Your task to perform on an android device: allow notifications from all sites in the chrome app Image 0: 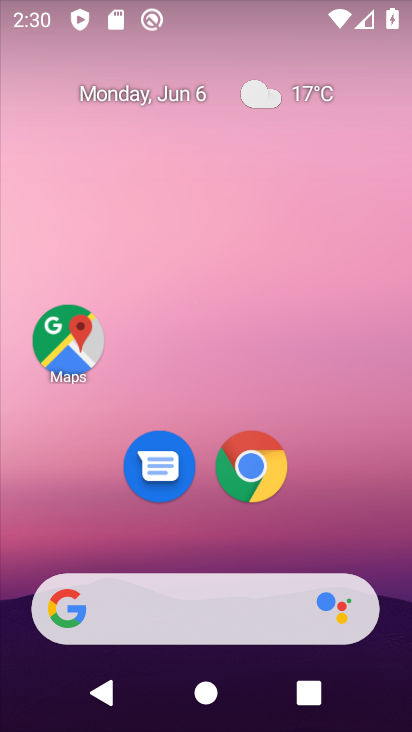
Step 0: click (276, 493)
Your task to perform on an android device: allow notifications from all sites in the chrome app Image 1: 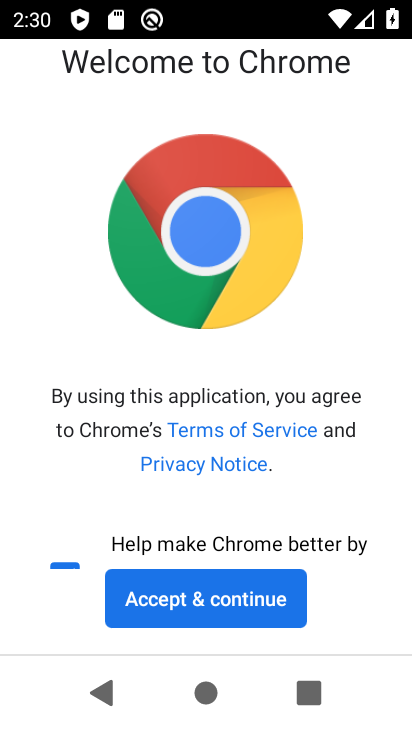
Step 1: click (232, 593)
Your task to perform on an android device: allow notifications from all sites in the chrome app Image 2: 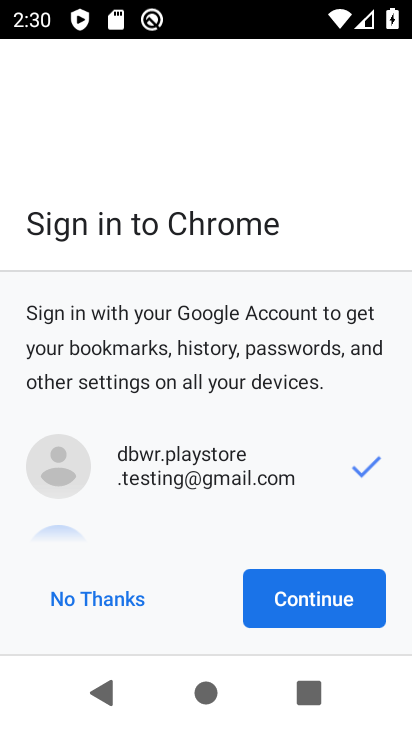
Step 2: click (342, 591)
Your task to perform on an android device: allow notifications from all sites in the chrome app Image 3: 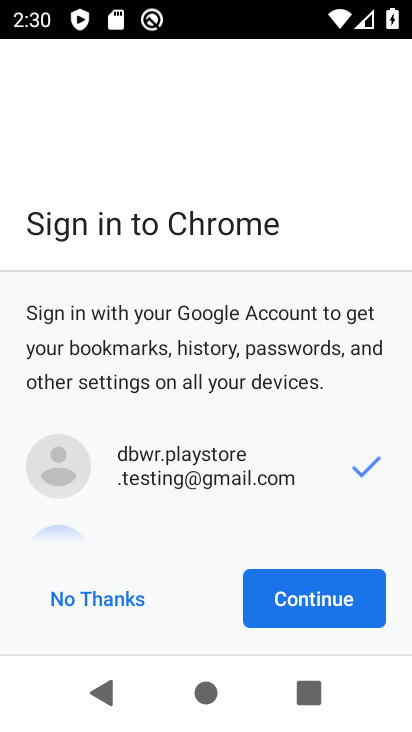
Step 3: click (340, 589)
Your task to perform on an android device: allow notifications from all sites in the chrome app Image 4: 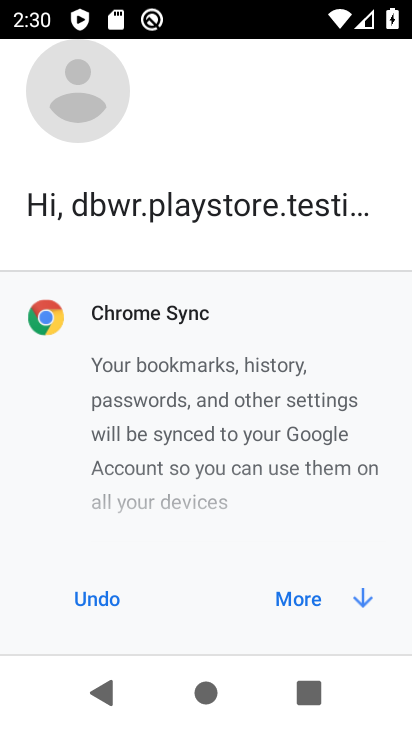
Step 4: click (340, 589)
Your task to perform on an android device: allow notifications from all sites in the chrome app Image 5: 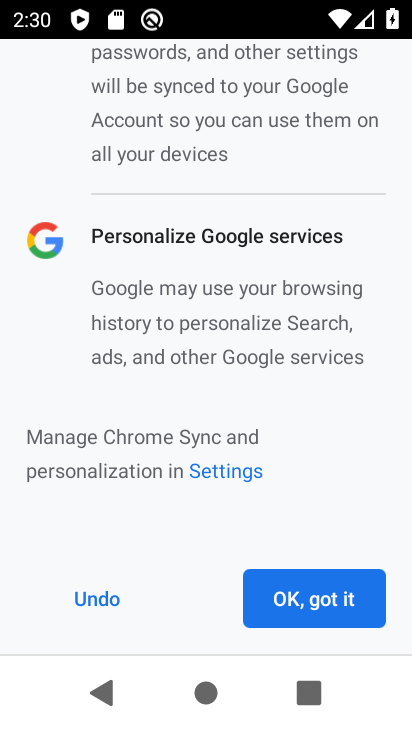
Step 5: click (333, 581)
Your task to perform on an android device: allow notifications from all sites in the chrome app Image 6: 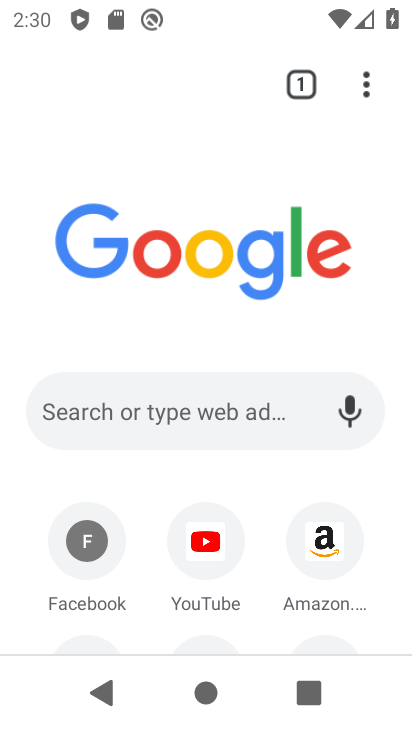
Step 6: click (373, 90)
Your task to perform on an android device: allow notifications from all sites in the chrome app Image 7: 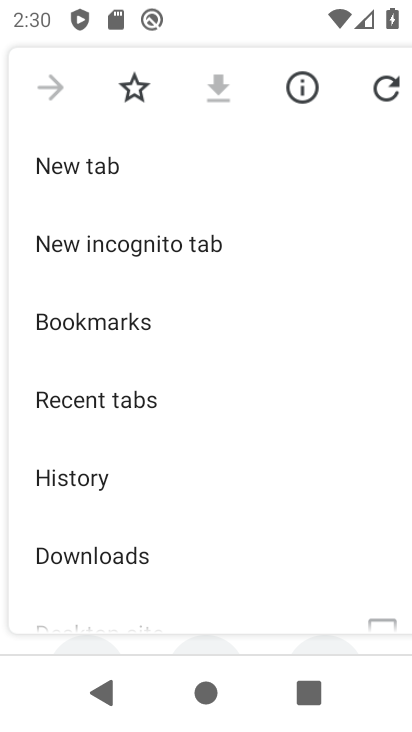
Step 7: drag from (210, 520) to (122, 7)
Your task to perform on an android device: allow notifications from all sites in the chrome app Image 8: 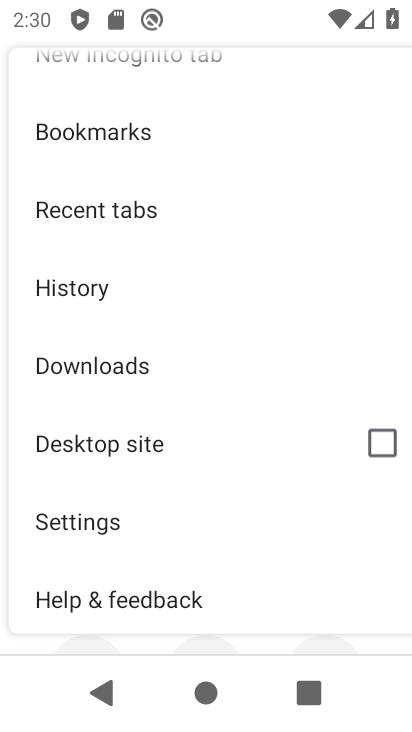
Step 8: click (203, 521)
Your task to perform on an android device: allow notifications from all sites in the chrome app Image 9: 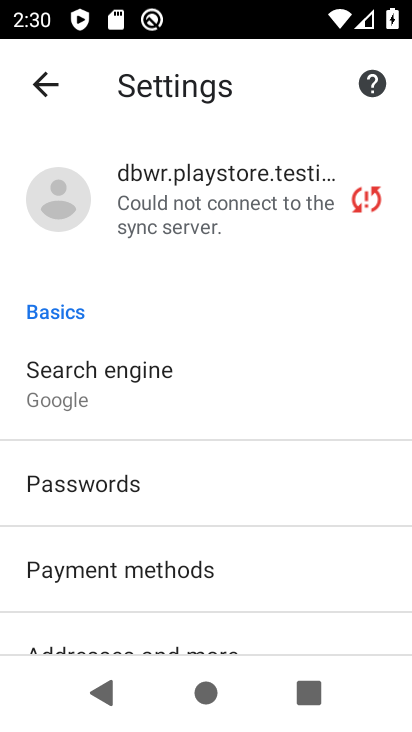
Step 9: drag from (227, 459) to (193, 49)
Your task to perform on an android device: allow notifications from all sites in the chrome app Image 10: 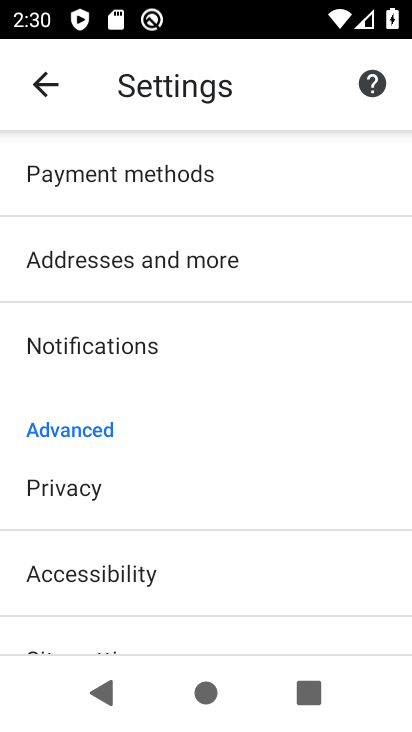
Step 10: drag from (206, 565) to (185, 92)
Your task to perform on an android device: allow notifications from all sites in the chrome app Image 11: 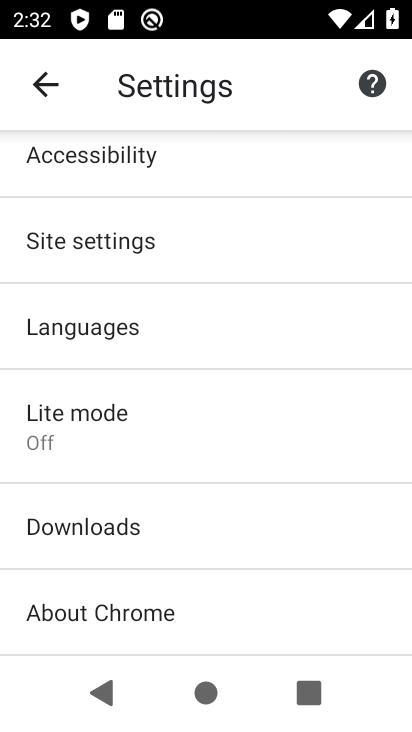
Step 11: press home button
Your task to perform on an android device: allow notifications from all sites in the chrome app Image 12: 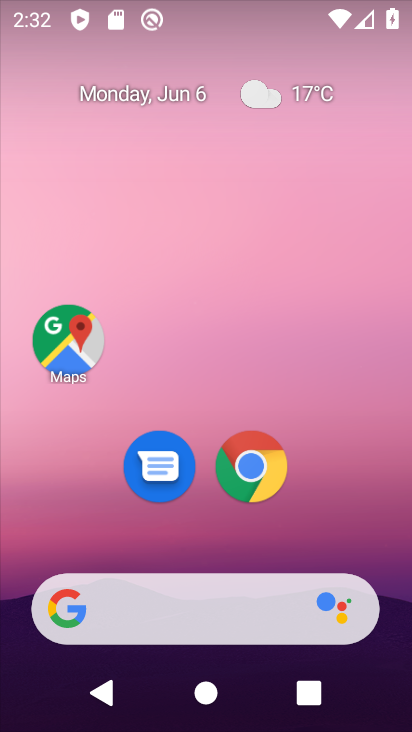
Step 12: click (250, 468)
Your task to perform on an android device: allow notifications from all sites in the chrome app Image 13: 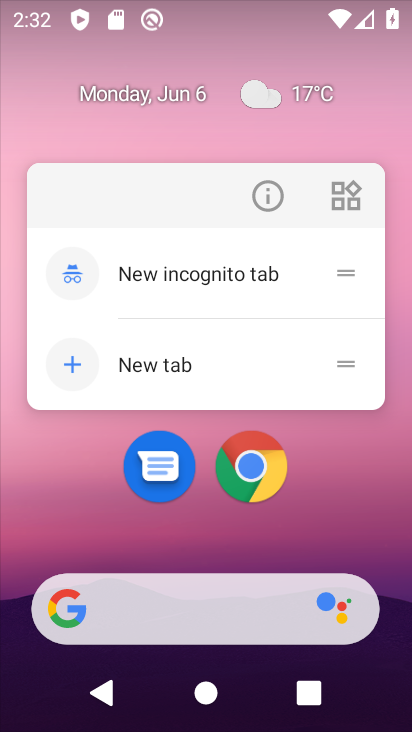
Step 13: click (251, 479)
Your task to perform on an android device: allow notifications from all sites in the chrome app Image 14: 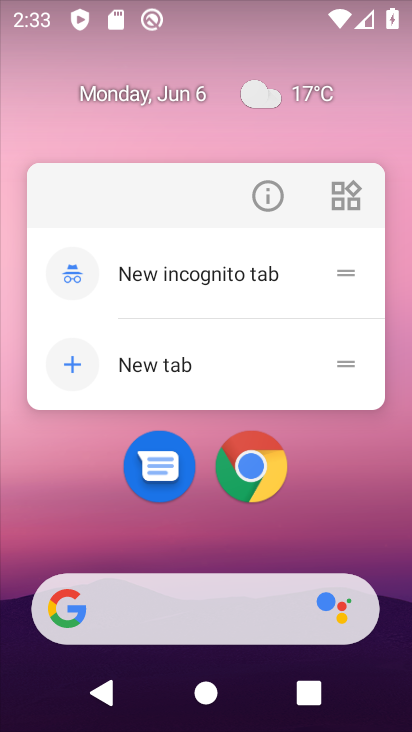
Step 14: press home button
Your task to perform on an android device: allow notifications from all sites in the chrome app Image 15: 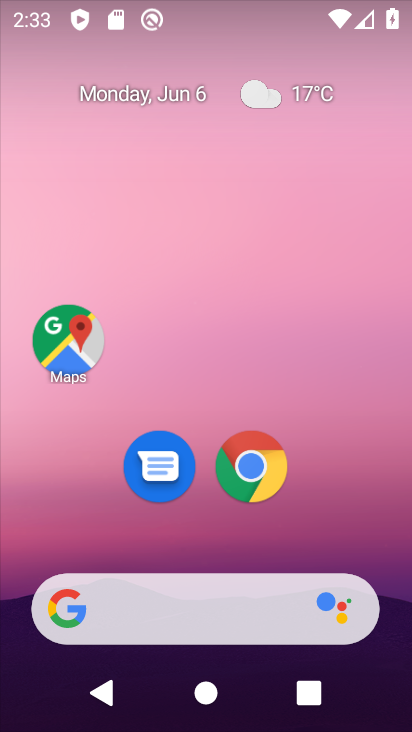
Step 15: click (265, 470)
Your task to perform on an android device: allow notifications from all sites in the chrome app Image 16: 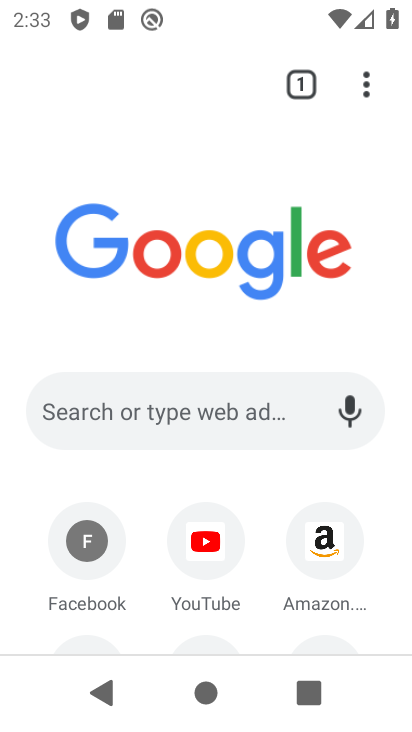
Step 16: click (364, 70)
Your task to perform on an android device: allow notifications from all sites in the chrome app Image 17: 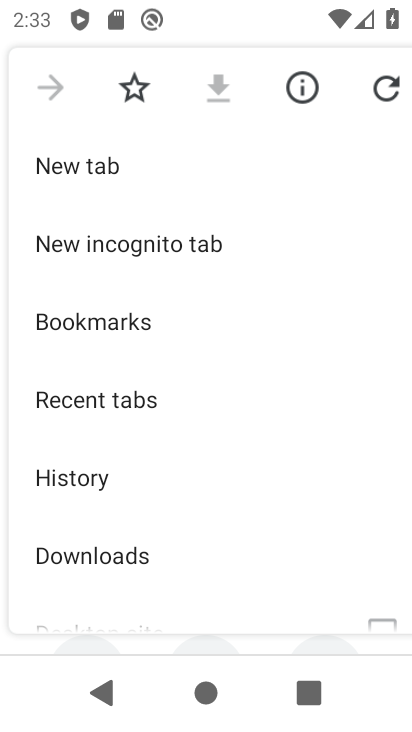
Step 17: drag from (234, 365) to (208, 72)
Your task to perform on an android device: allow notifications from all sites in the chrome app Image 18: 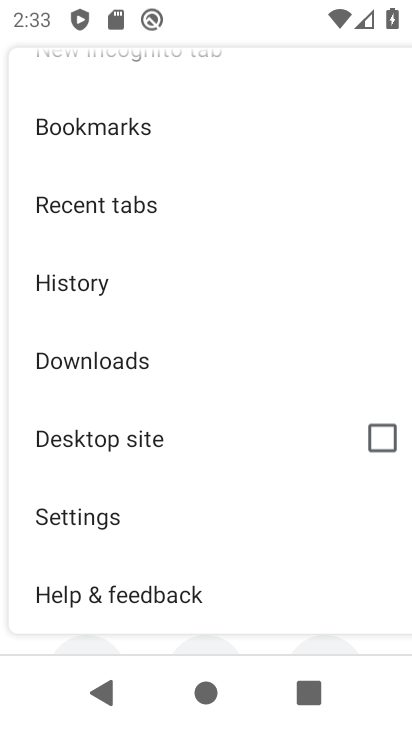
Step 18: click (170, 522)
Your task to perform on an android device: allow notifications from all sites in the chrome app Image 19: 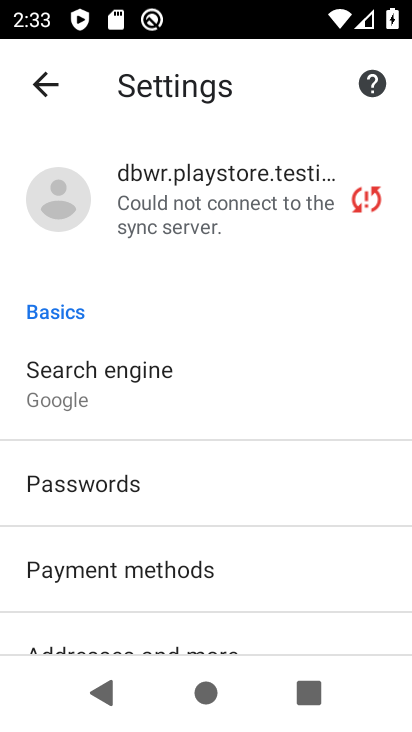
Step 19: drag from (265, 518) to (260, 1)
Your task to perform on an android device: allow notifications from all sites in the chrome app Image 20: 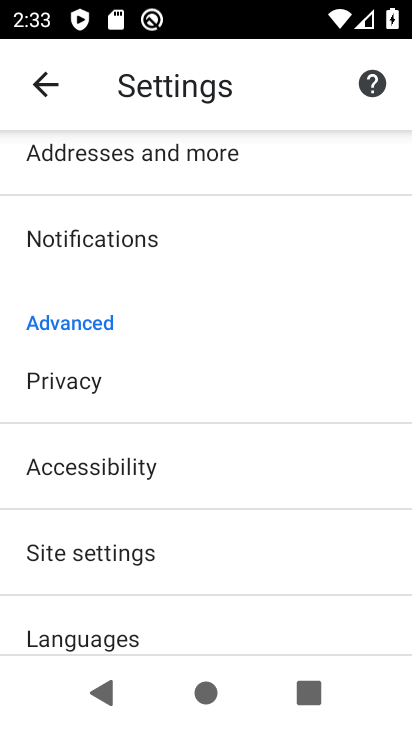
Step 20: click (129, 553)
Your task to perform on an android device: allow notifications from all sites in the chrome app Image 21: 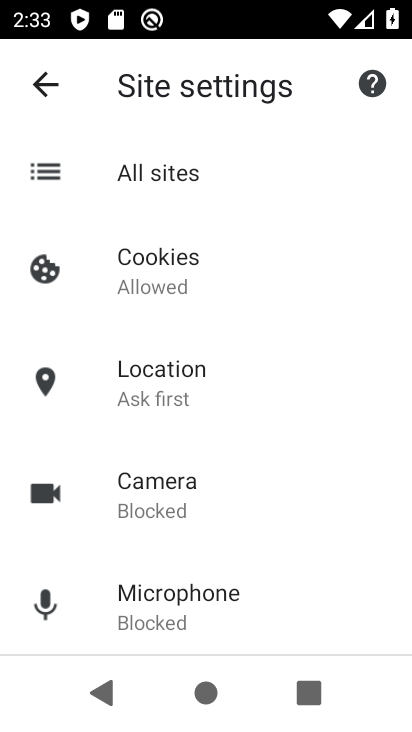
Step 21: click (197, 168)
Your task to perform on an android device: allow notifications from all sites in the chrome app Image 22: 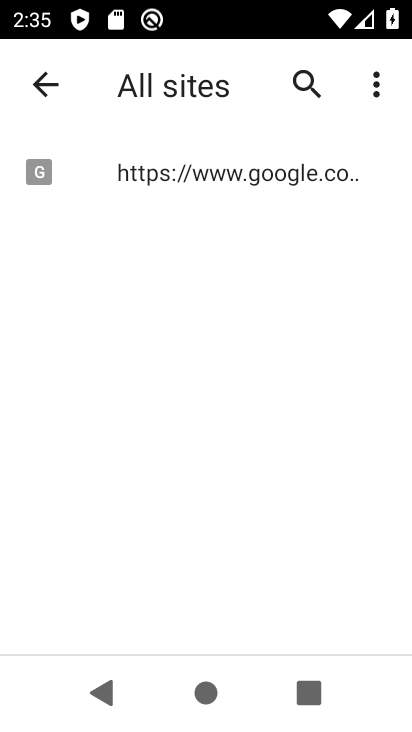
Step 22: task complete